Your task to perform on an android device: add a contact Image 0: 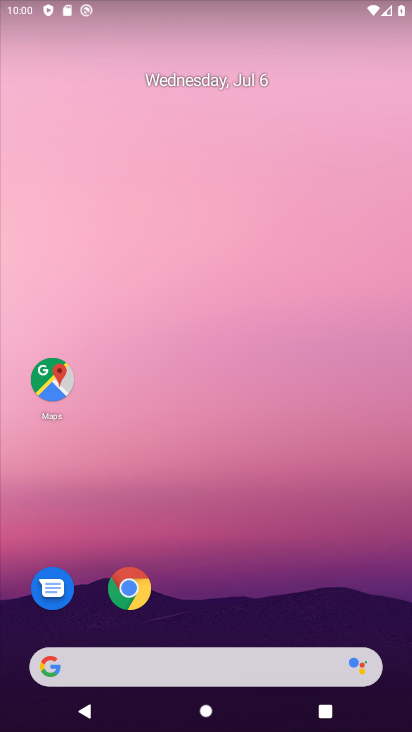
Step 0: drag from (275, 611) to (260, 315)
Your task to perform on an android device: add a contact Image 1: 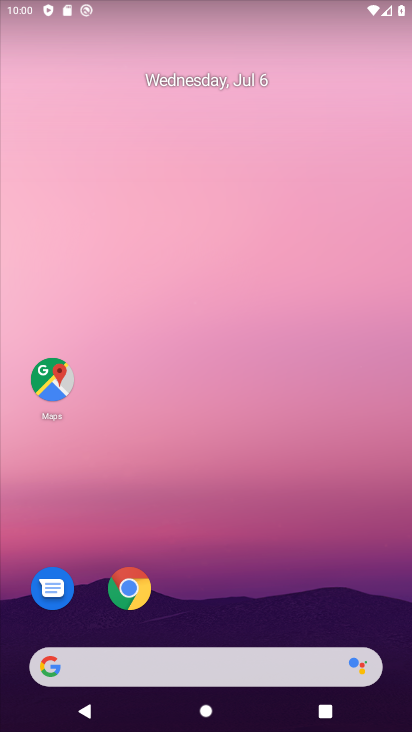
Step 1: drag from (219, 608) to (223, 141)
Your task to perform on an android device: add a contact Image 2: 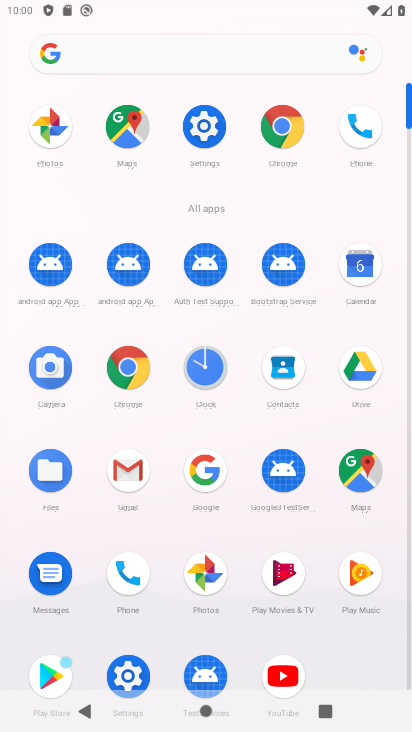
Step 2: click (356, 120)
Your task to perform on an android device: add a contact Image 3: 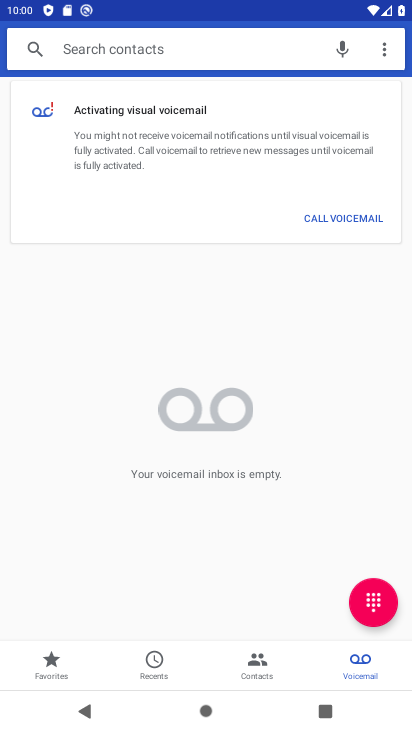
Step 3: click (49, 653)
Your task to perform on an android device: add a contact Image 4: 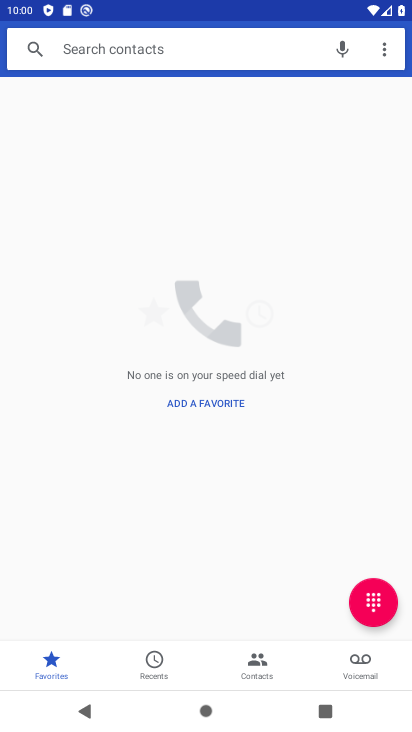
Step 4: click (214, 398)
Your task to perform on an android device: add a contact Image 5: 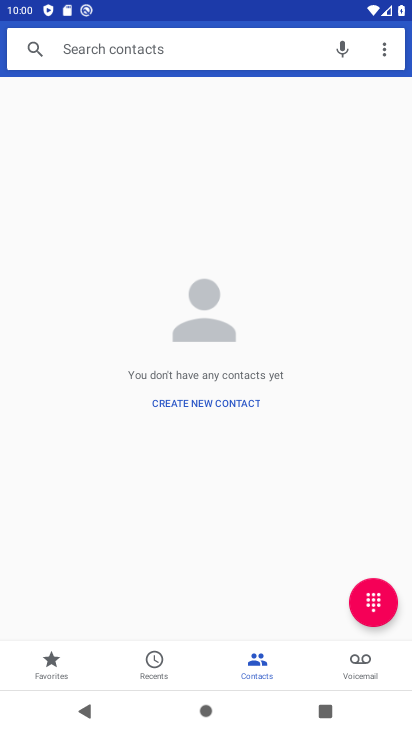
Step 5: click (214, 398)
Your task to perform on an android device: add a contact Image 6: 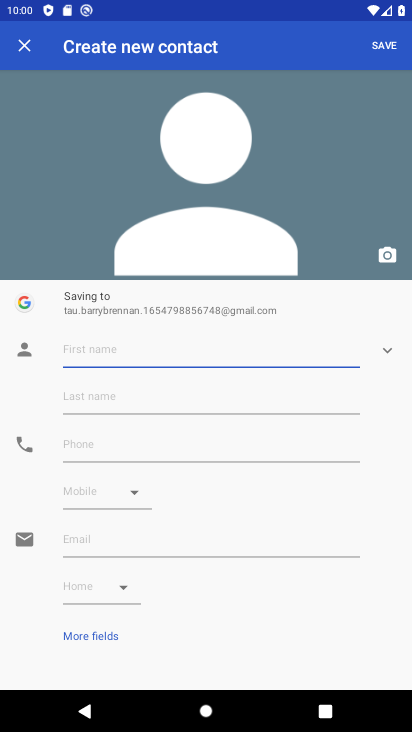
Step 6: click (172, 353)
Your task to perform on an android device: add a contact Image 7: 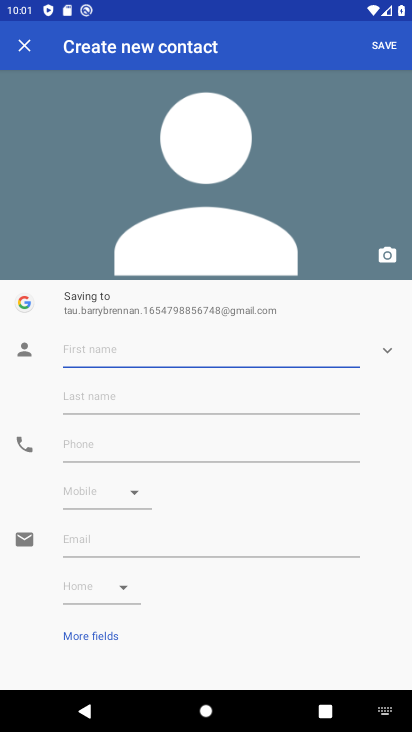
Step 7: type "rahul "
Your task to perform on an android device: add a contact Image 8: 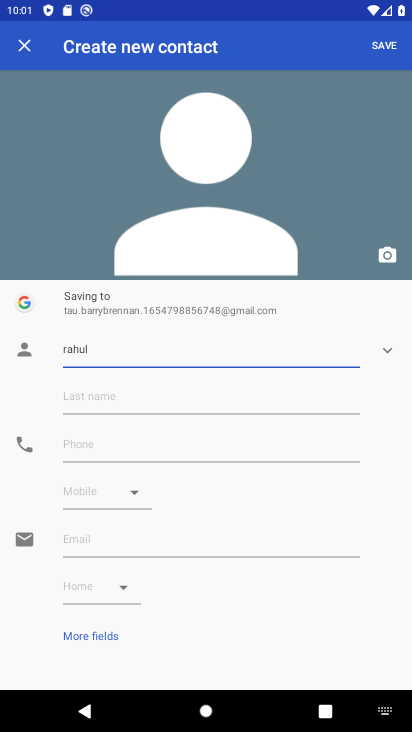
Step 8: click (113, 437)
Your task to perform on an android device: add a contact Image 9: 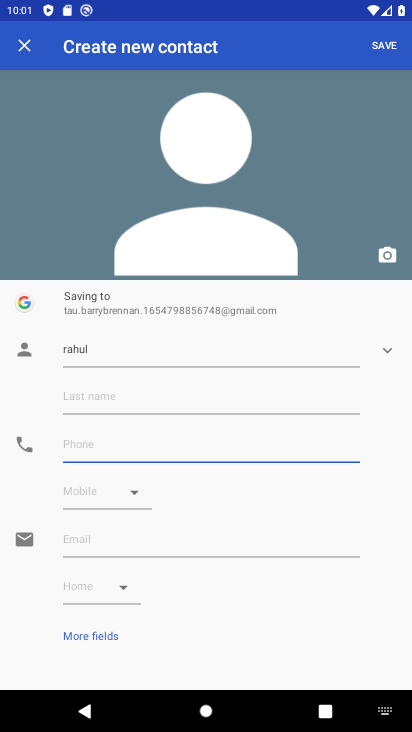
Step 9: type "12345678k90"
Your task to perform on an android device: add a contact Image 10: 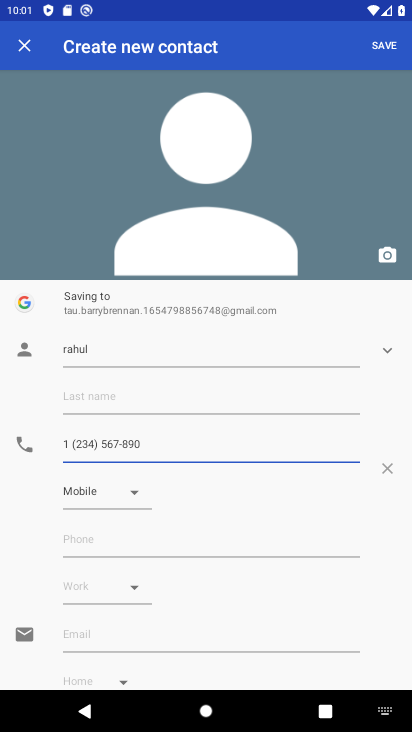
Step 10: click (390, 38)
Your task to perform on an android device: add a contact Image 11: 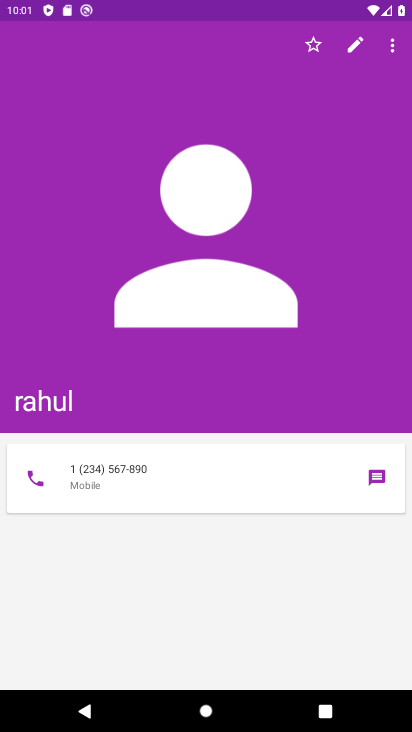
Step 11: task complete